Your task to perform on an android device: Open CNN.com Image 0: 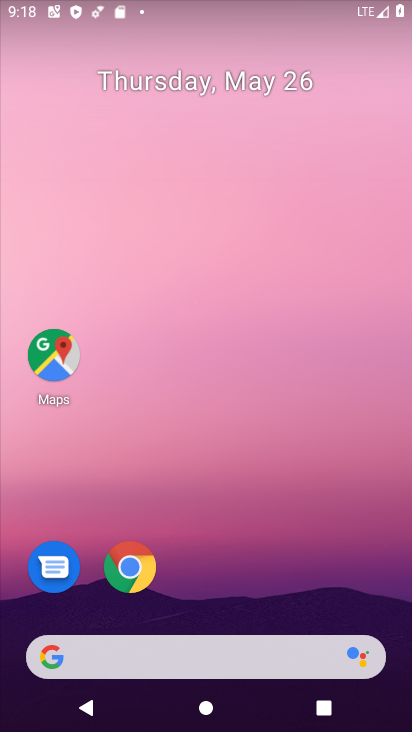
Step 0: click (255, 666)
Your task to perform on an android device: Open CNN.com Image 1: 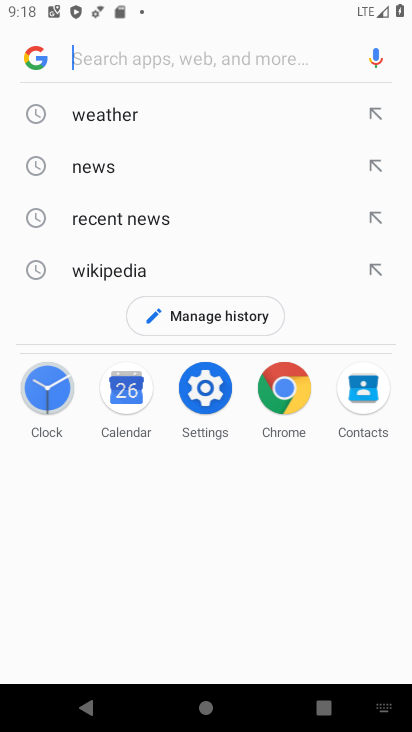
Step 1: type "cnn.com"
Your task to perform on an android device: Open CNN.com Image 2: 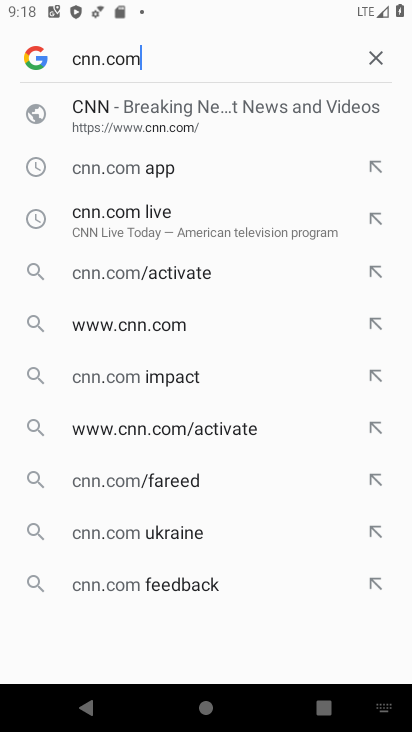
Step 2: click (274, 122)
Your task to perform on an android device: Open CNN.com Image 3: 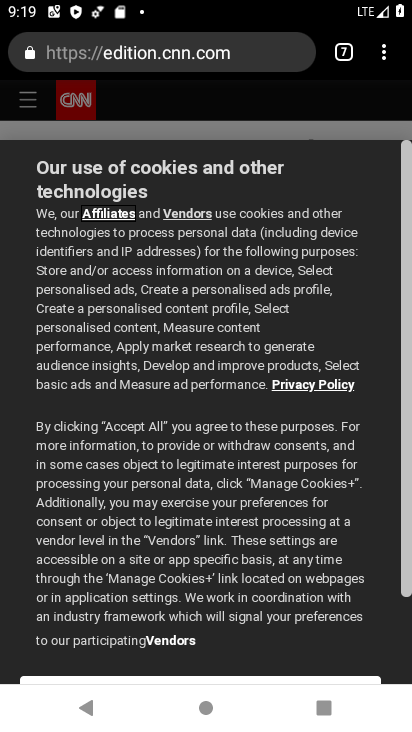
Step 3: task complete